Your task to perform on an android device: Open the calendar app, open the side menu, and click the "Day" option Image 0: 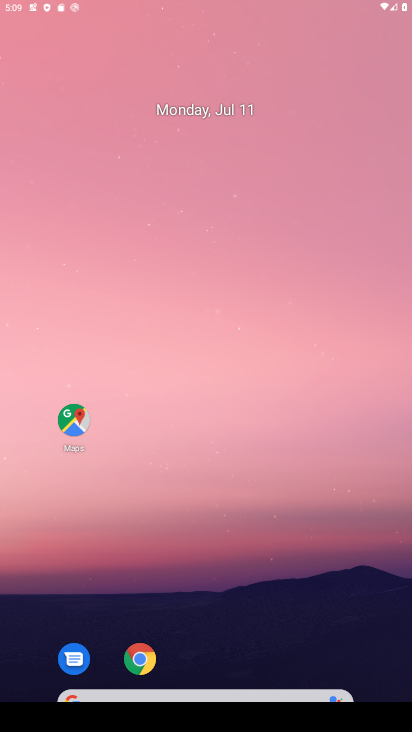
Step 0: click (334, 143)
Your task to perform on an android device: Open the calendar app, open the side menu, and click the "Day" option Image 1: 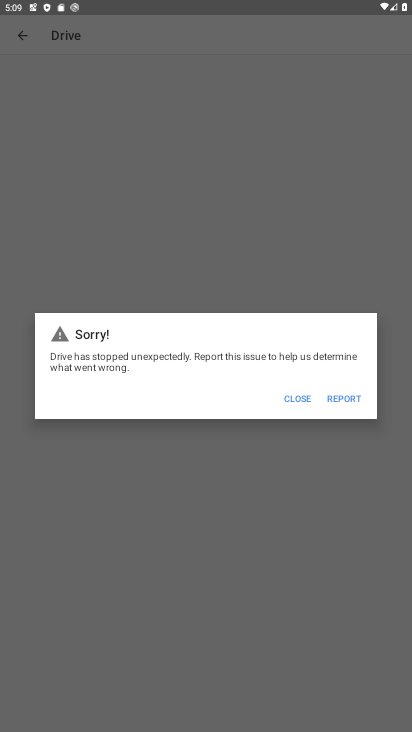
Step 1: press home button
Your task to perform on an android device: Open the calendar app, open the side menu, and click the "Day" option Image 2: 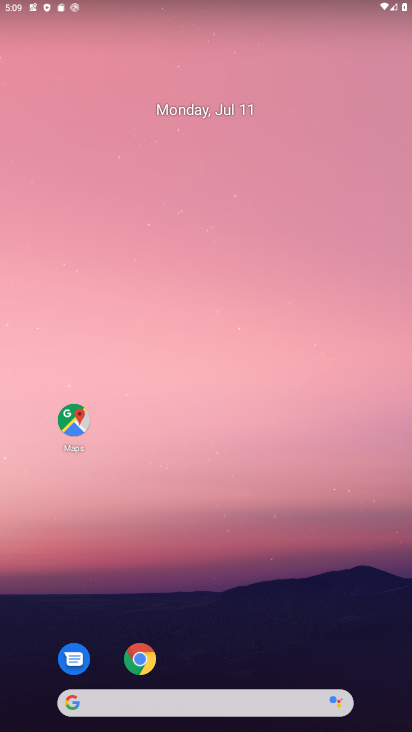
Step 2: drag from (356, 649) to (306, 100)
Your task to perform on an android device: Open the calendar app, open the side menu, and click the "Day" option Image 3: 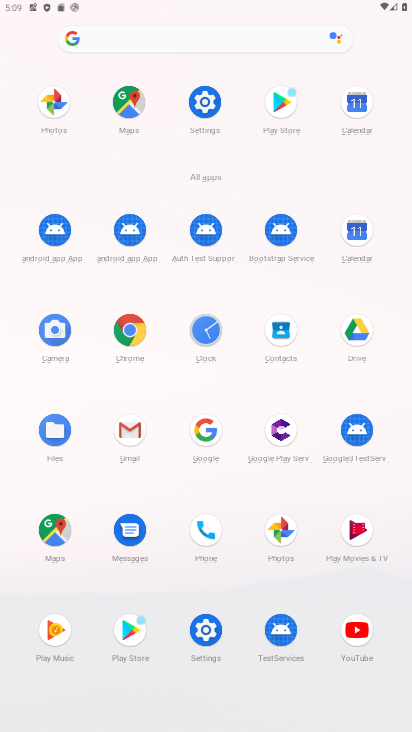
Step 3: click (355, 231)
Your task to perform on an android device: Open the calendar app, open the side menu, and click the "Day" option Image 4: 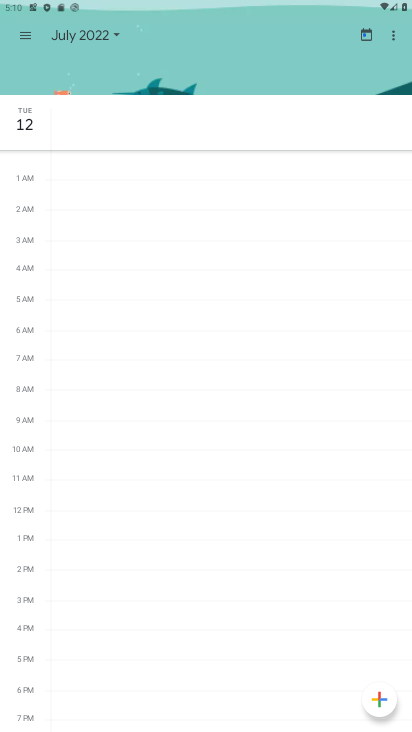
Step 4: click (21, 35)
Your task to perform on an android device: Open the calendar app, open the side menu, and click the "Day" option Image 5: 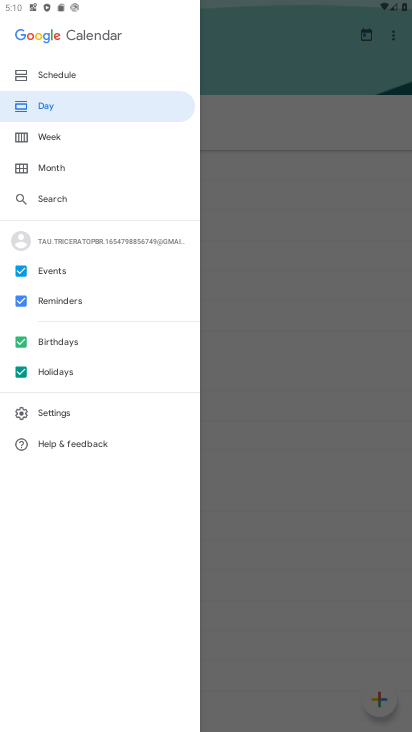
Step 5: click (51, 101)
Your task to perform on an android device: Open the calendar app, open the side menu, and click the "Day" option Image 6: 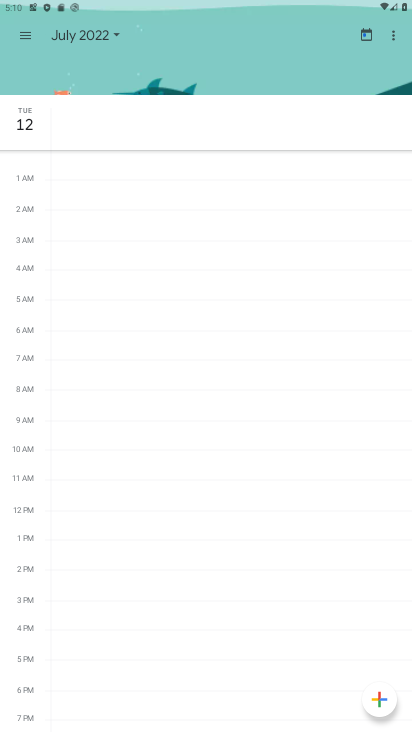
Step 6: task complete